Your task to perform on an android device: What's on my calendar tomorrow? Image 0: 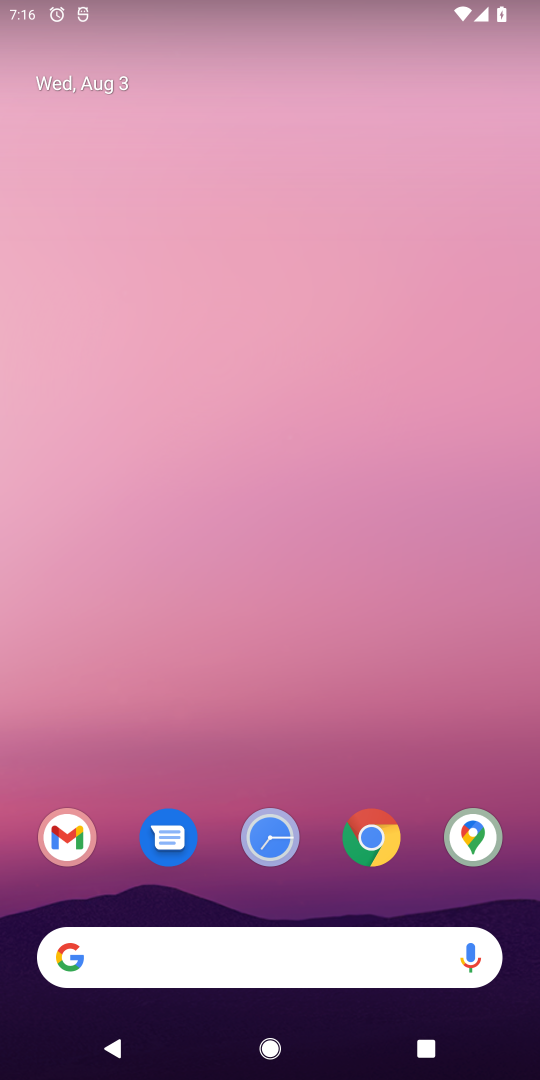
Step 0: press home button
Your task to perform on an android device: What's on my calendar tomorrow? Image 1: 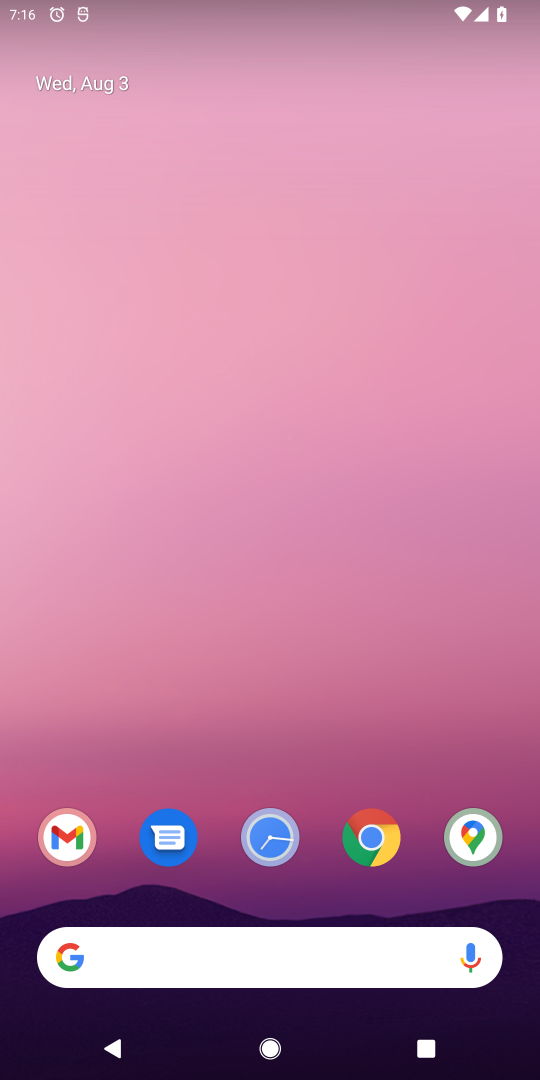
Step 1: drag from (313, 765) to (368, 146)
Your task to perform on an android device: What's on my calendar tomorrow? Image 2: 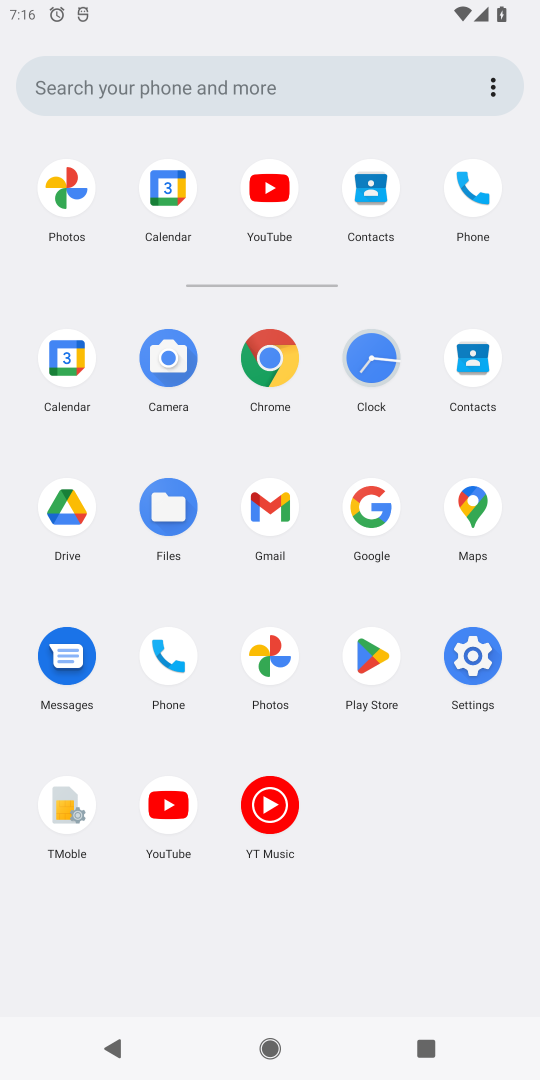
Step 2: click (69, 347)
Your task to perform on an android device: What's on my calendar tomorrow? Image 3: 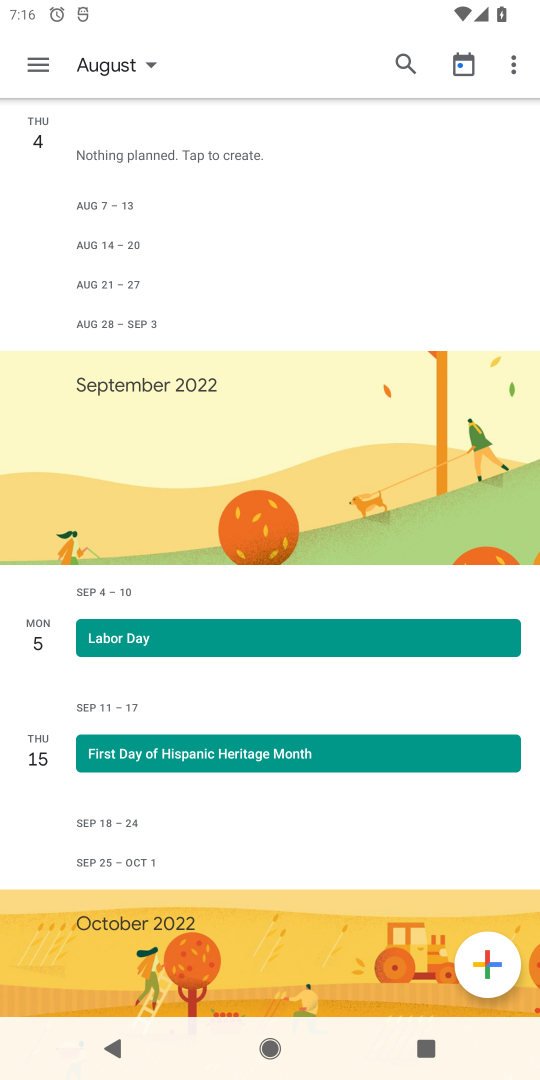
Step 3: task complete